Your task to perform on an android device: remove spam from my inbox in the gmail app Image 0: 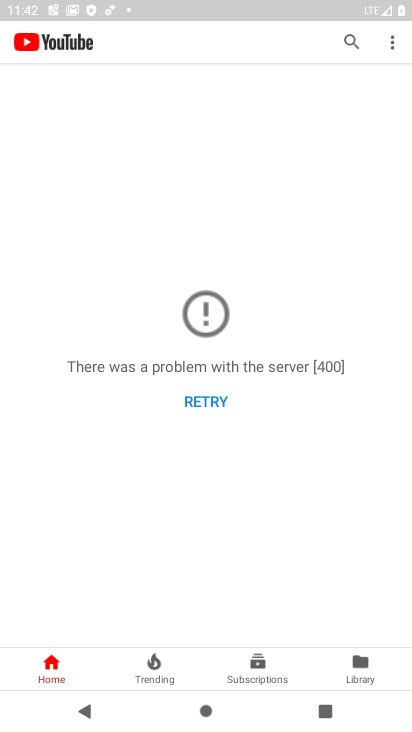
Step 0: press home button
Your task to perform on an android device: remove spam from my inbox in the gmail app Image 1: 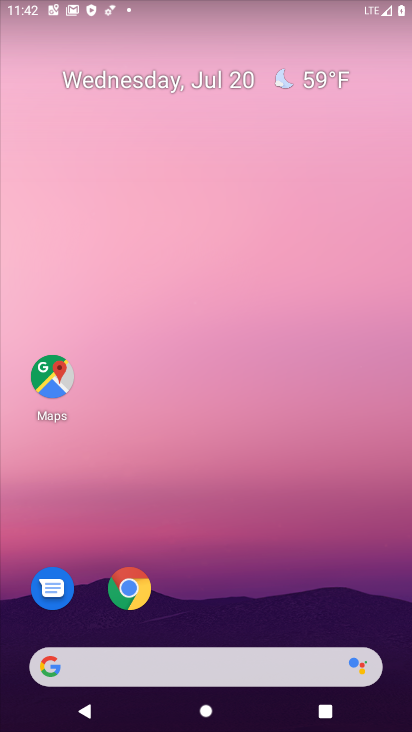
Step 1: drag from (341, 277) to (411, 414)
Your task to perform on an android device: remove spam from my inbox in the gmail app Image 2: 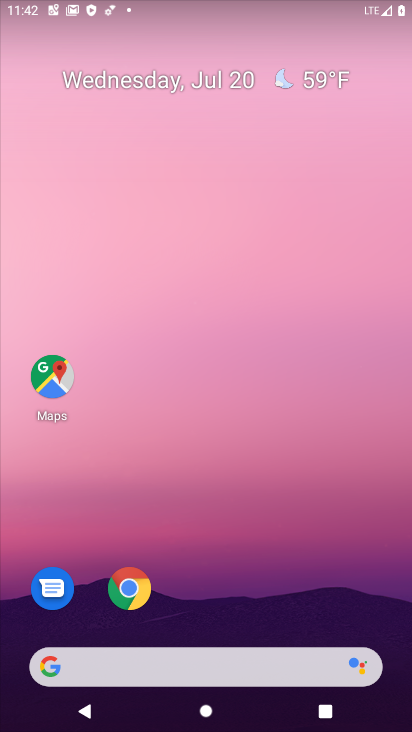
Step 2: drag from (259, 607) to (137, 633)
Your task to perform on an android device: remove spam from my inbox in the gmail app Image 3: 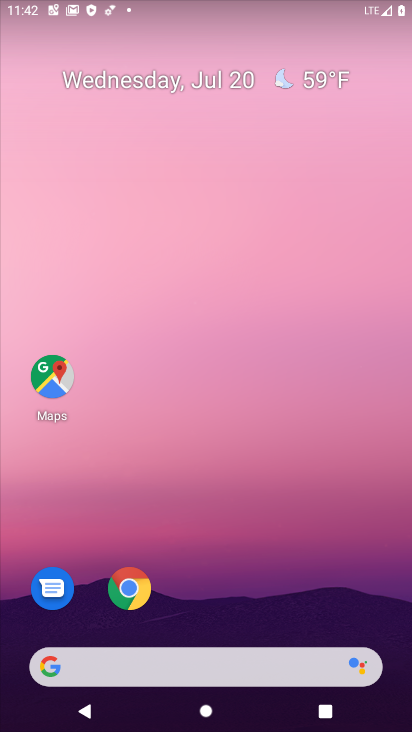
Step 3: drag from (221, 530) to (248, 32)
Your task to perform on an android device: remove spam from my inbox in the gmail app Image 4: 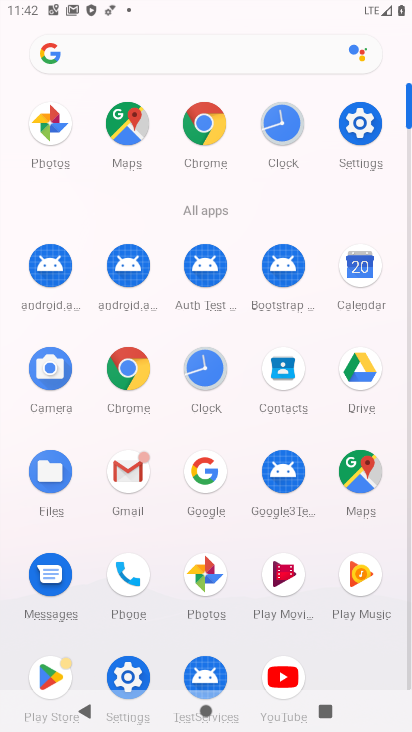
Step 4: click (137, 470)
Your task to perform on an android device: remove spam from my inbox in the gmail app Image 5: 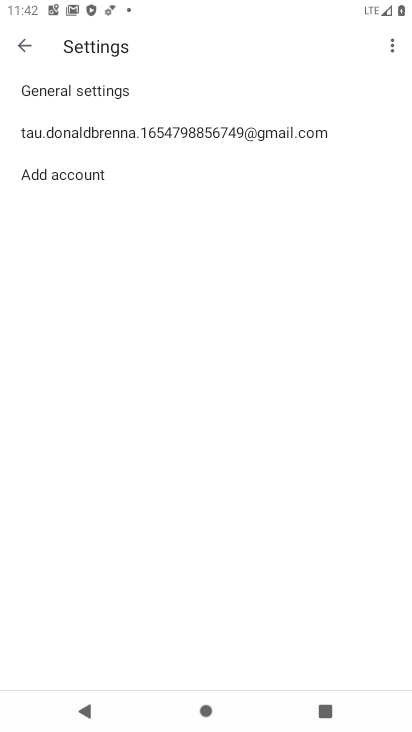
Step 5: click (25, 44)
Your task to perform on an android device: remove spam from my inbox in the gmail app Image 6: 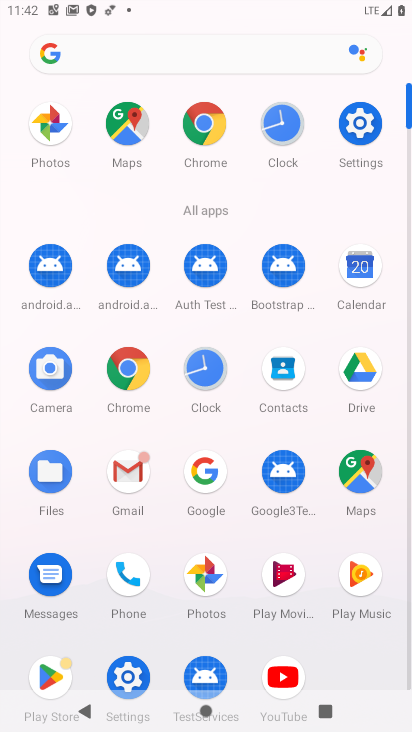
Step 6: click (112, 488)
Your task to perform on an android device: remove spam from my inbox in the gmail app Image 7: 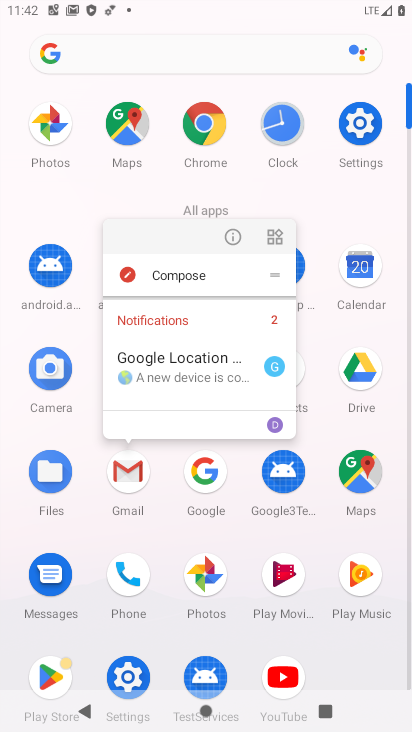
Step 7: click (112, 487)
Your task to perform on an android device: remove spam from my inbox in the gmail app Image 8: 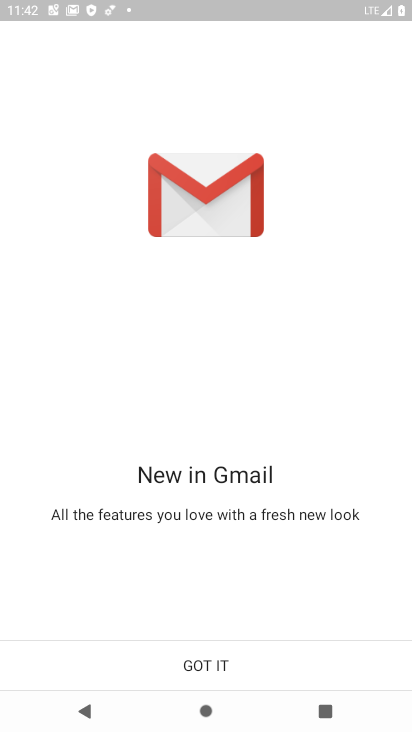
Step 8: click (164, 654)
Your task to perform on an android device: remove spam from my inbox in the gmail app Image 9: 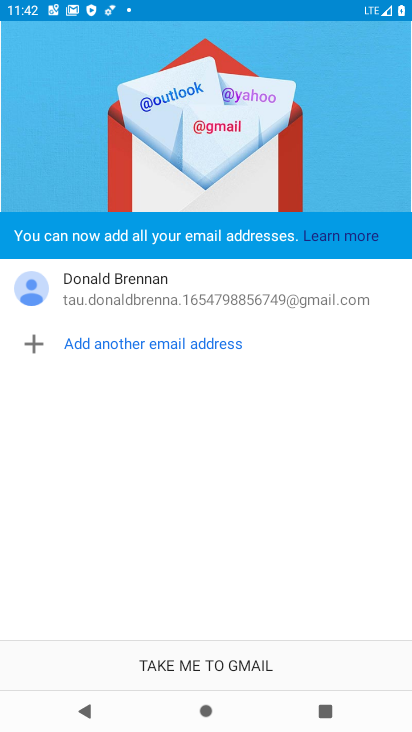
Step 9: click (188, 659)
Your task to perform on an android device: remove spam from my inbox in the gmail app Image 10: 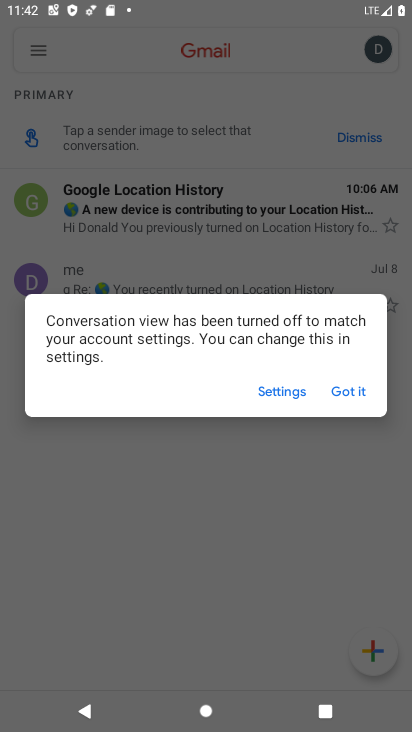
Step 10: click (354, 393)
Your task to perform on an android device: remove spam from my inbox in the gmail app Image 11: 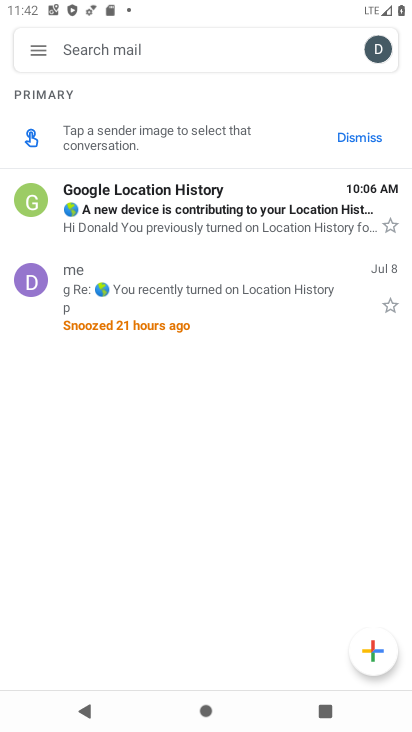
Step 11: click (36, 52)
Your task to perform on an android device: remove spam from my inbox in the gmail app Image 12: 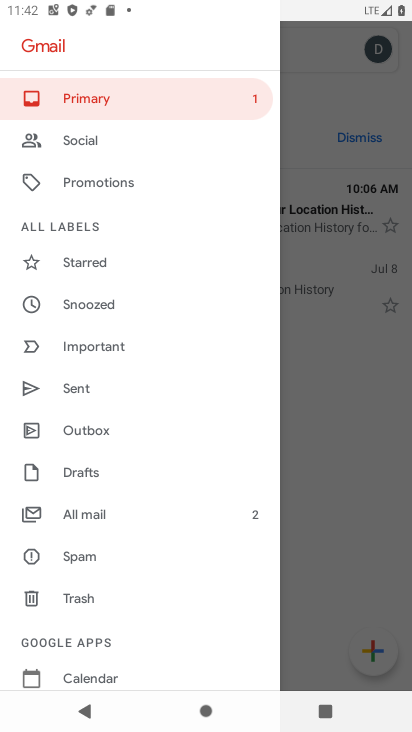
Step 12: click (87, 561)
Your task to perform on an android device: remove spam from my inbox in the gmail app Image 13: 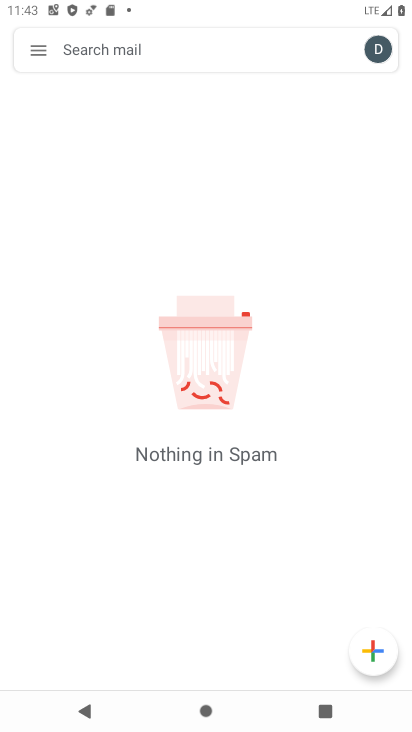
Step 13: task complete